Your task to perform on an android device: Add razer blade to the cart on walmart Image 0: 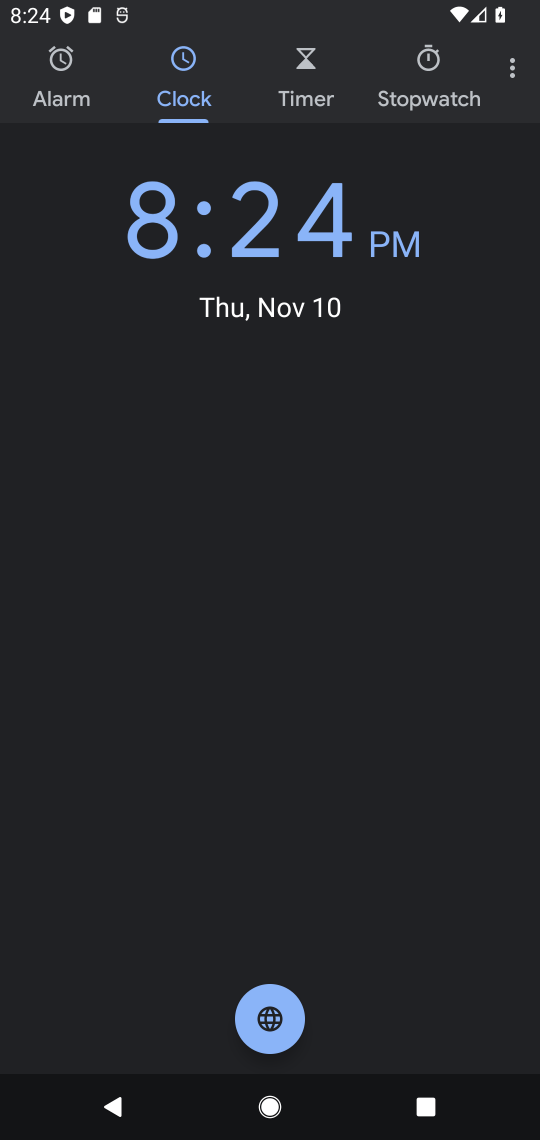
Step 0: press home button
Your task to perform on an android device: Add razer blade to the cart on walmart Image 1: 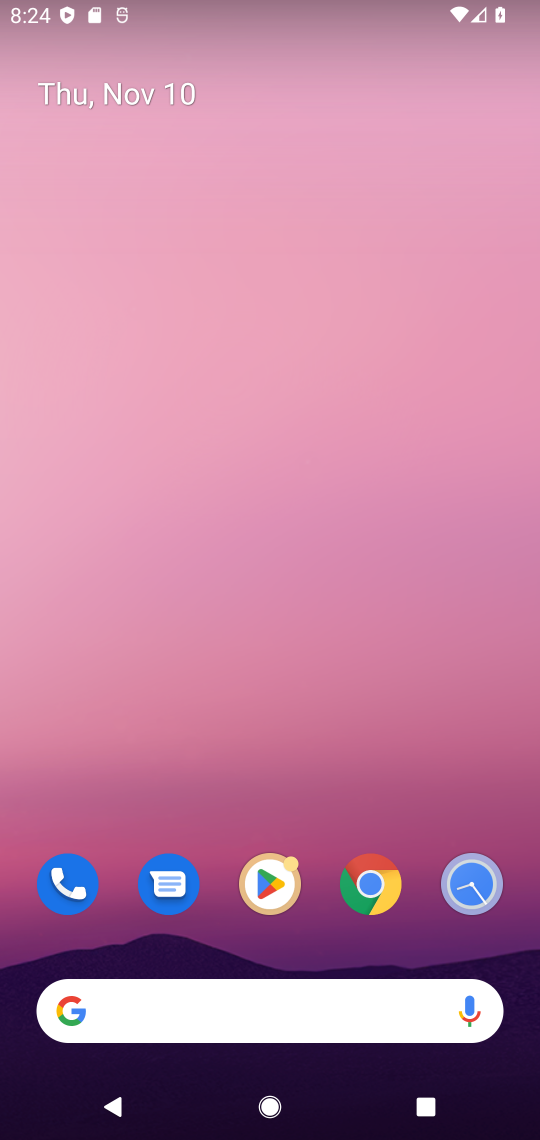
Step 1: click (289, 1012)
Your task to perform on an android device: Add razer blade to the cart on walmart Image 2: 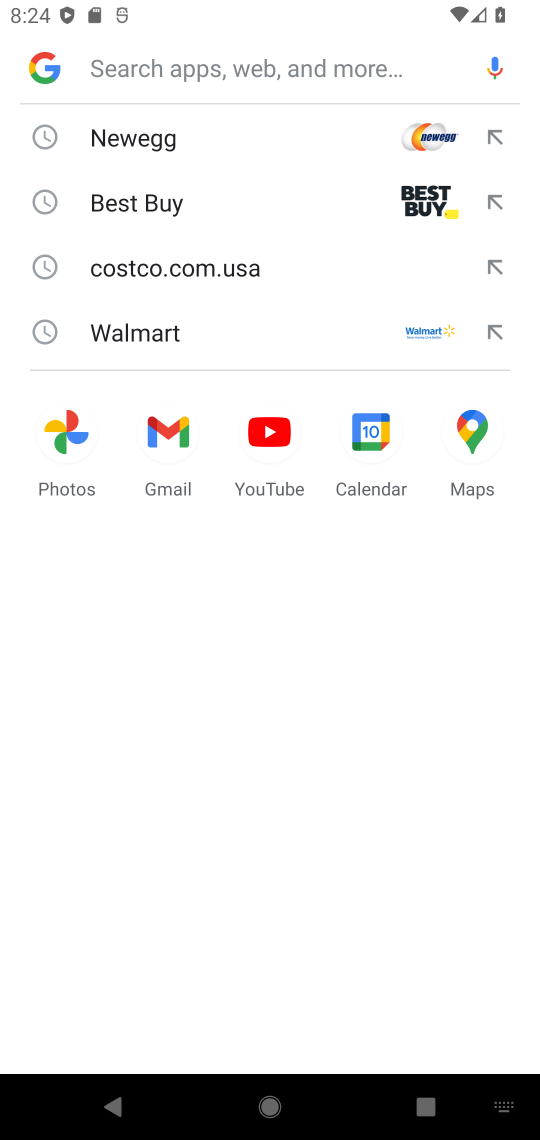
Step 2: click (199, 325)
Your task to perform on an android device: Add razer blade to the cart on walmart Image 3: 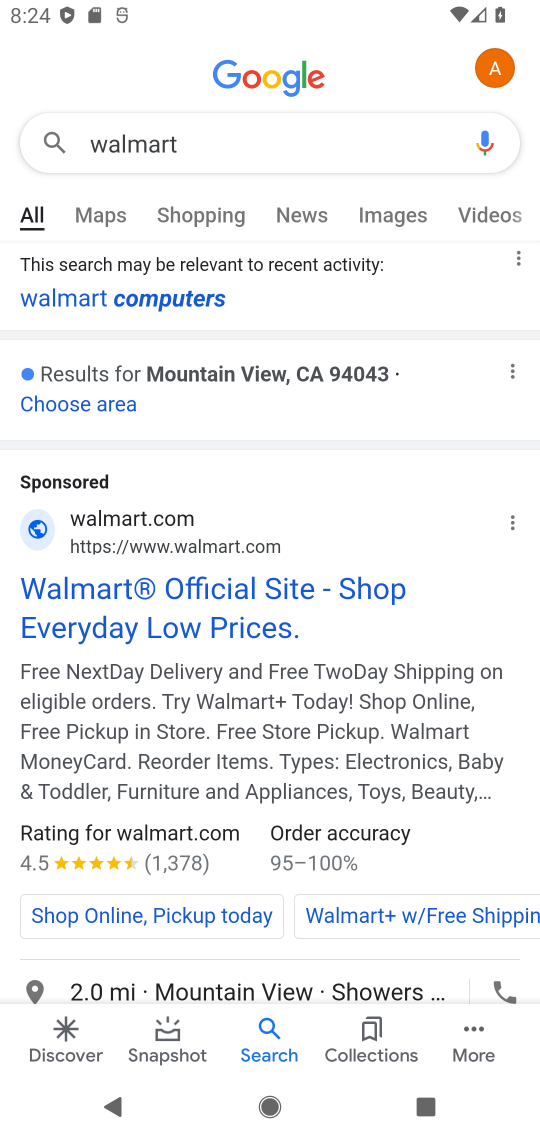
Step 3: click (77, 582)
Your task to perform on an android device: Add razer blade to the cart on walmart Image 4: 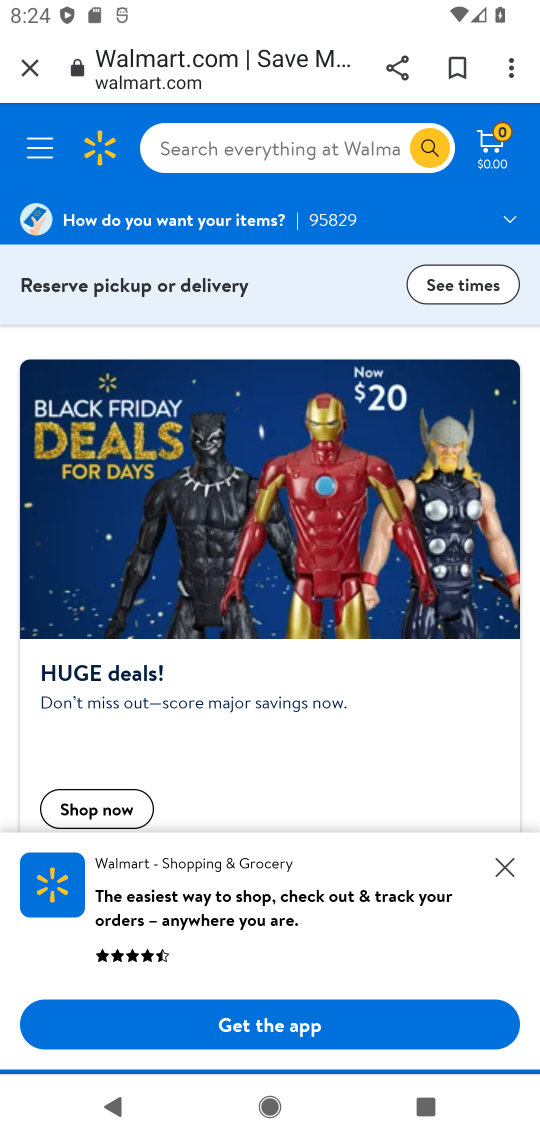
Step 4: click (498, 862)
Your task to perform on an android device: Add razer blade to the cart on walmart Image 5: 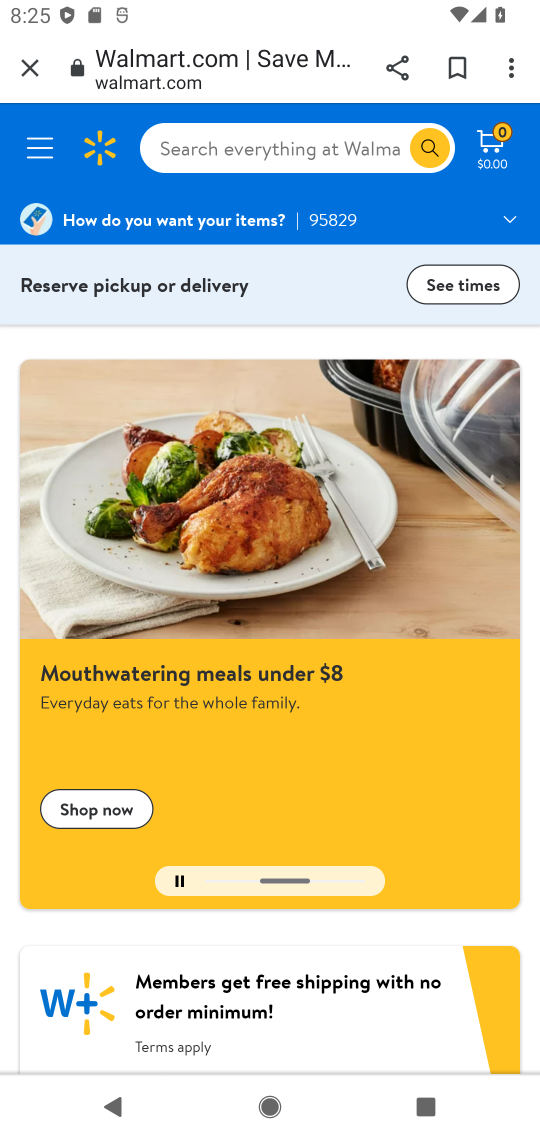
Step 5: click (245, 138)
Your task to perform on an android device: Add razer blade to the cart on walmart Image 6: 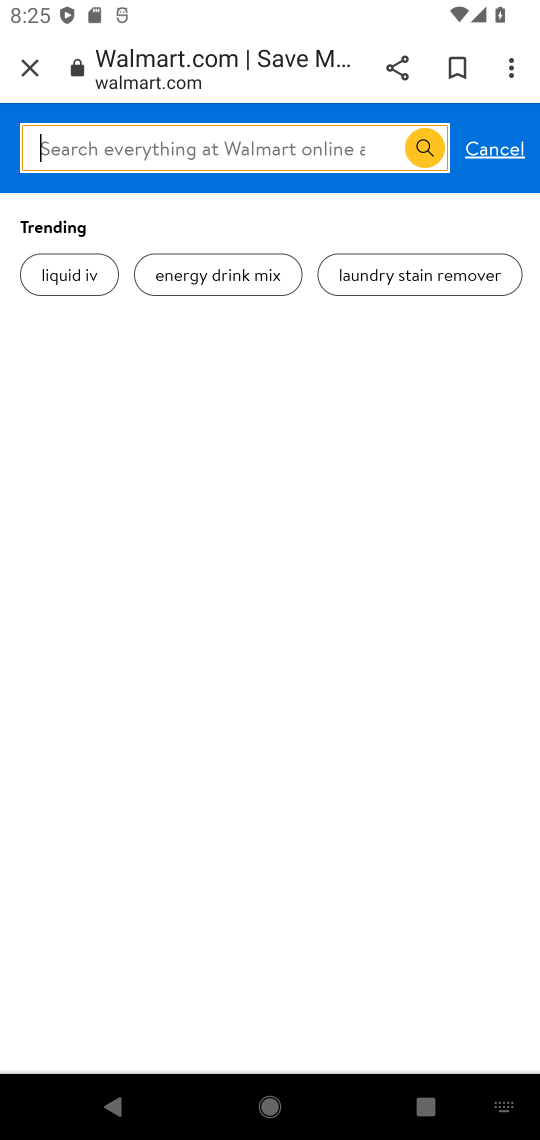
Step 6: type "razer blade "
Your task to perform on an android device: Add razer blade to the cart on walmart Image 7: 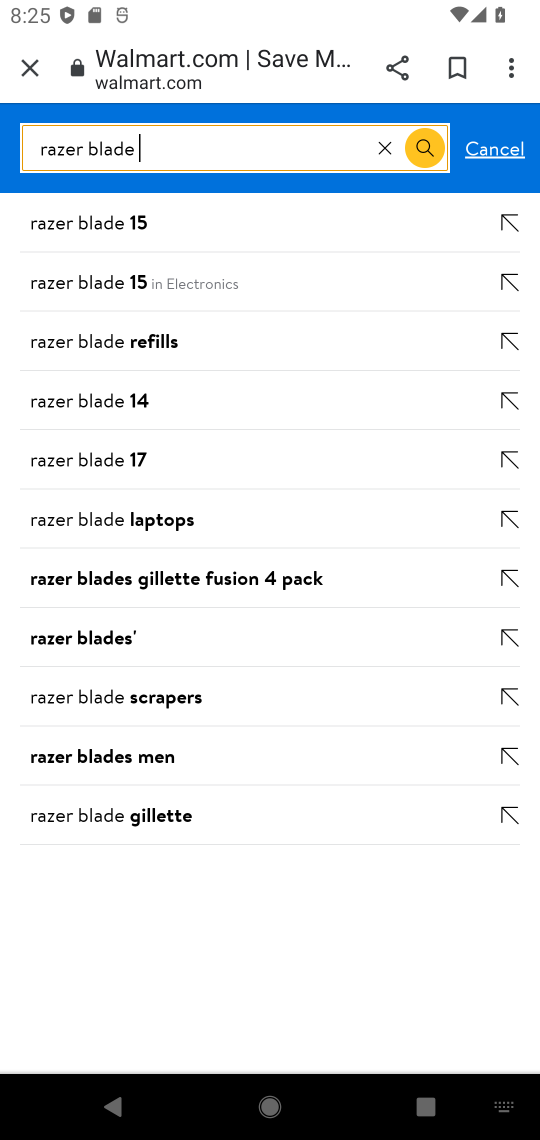
Step 7: click (98, 644)
Your task to perform on an android device: Add razer blade to the cart on walmart Image 8: 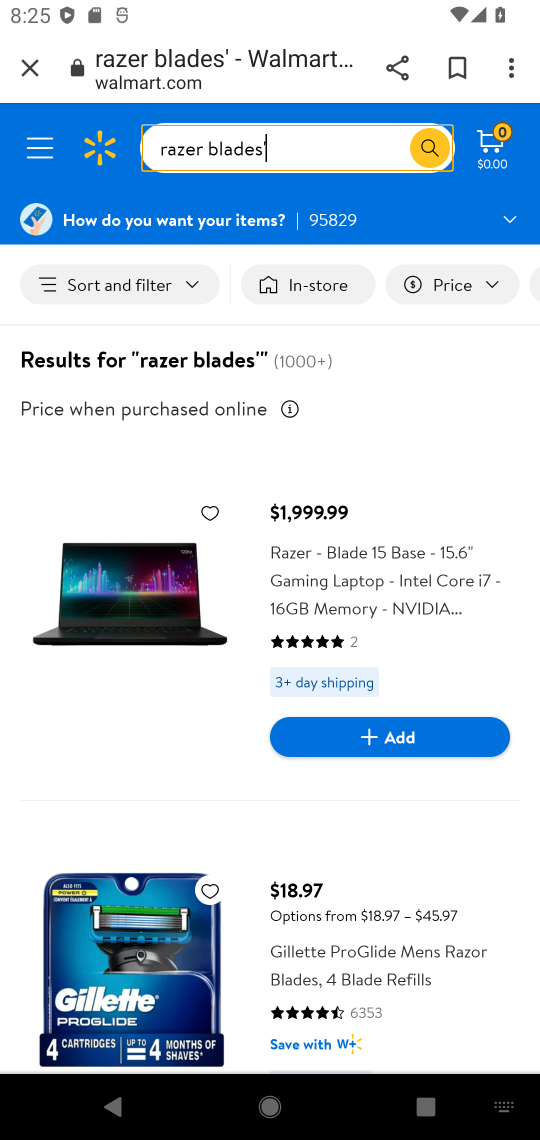
Step 8: click (378, 735)
Your task to perform on an android device: Add razer blade to the cart on walmart Image 9: 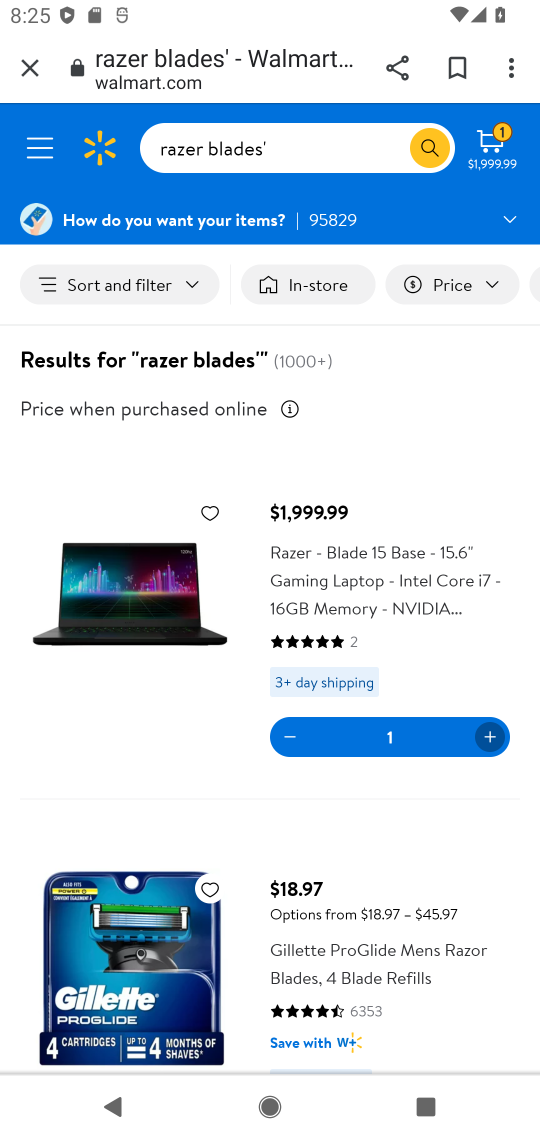
Step 9: task complete